Your task to perform on an android device: check google app version Image 0: 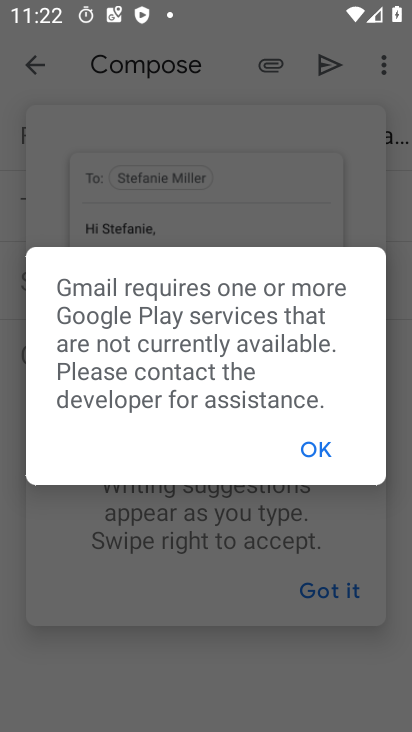
Step 0: press home button
Your task to perform on an android device: check google app version Image 1: 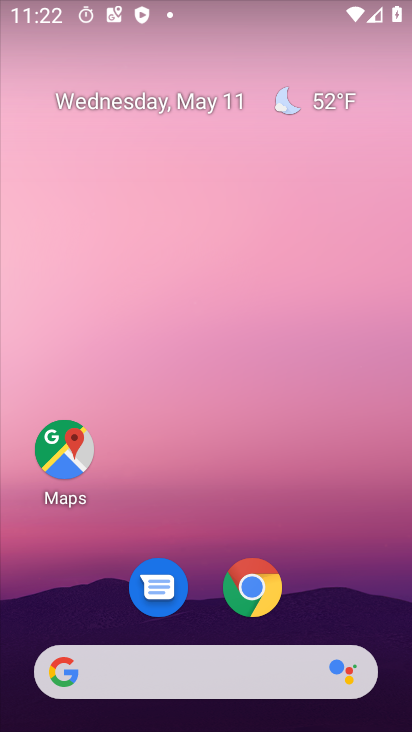
Step 1: drag from (187, 713) to (245, 382)
Your task to perform on an android device: check google app version Image 2: 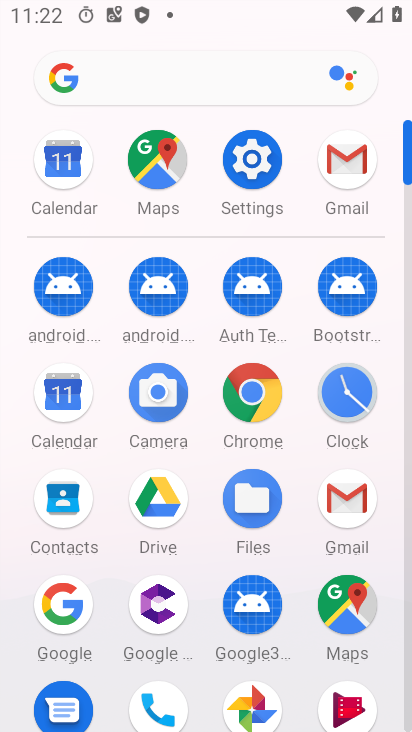
Step 2: click (235, 400)
Your task to perform on an android device: check google app version Image 3: 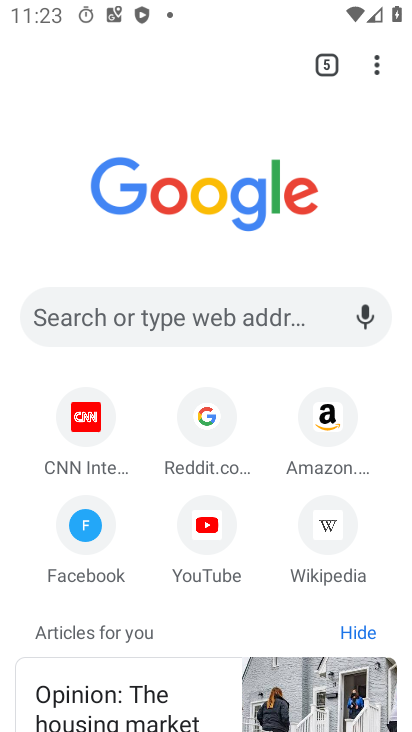
Step 3: click (382, 71)
Your task to perform on an android device: check google app version Image 4: 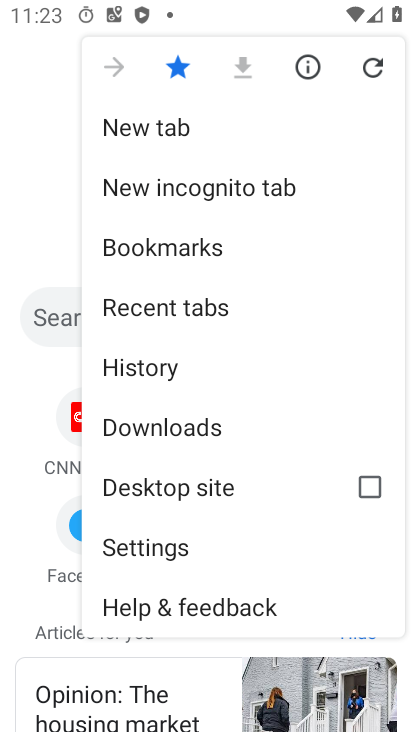
Step 4: click (168, 541)
Your task to perform on an android device: check google app version Image 5: 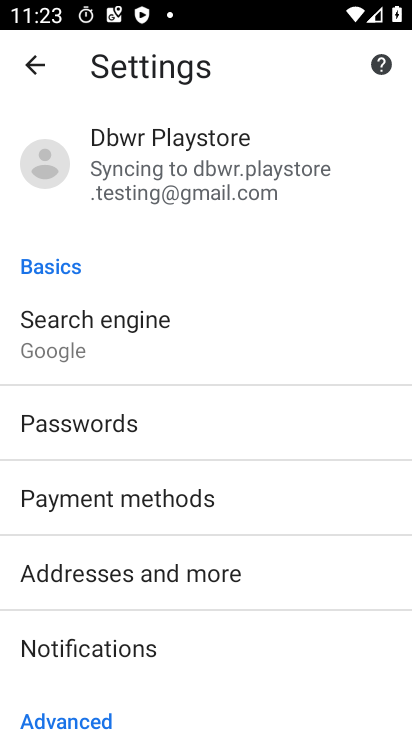
Step 5: drag from (119, 625) to (291, 274)
Your task to perform on an android device: check google app version Image 6: 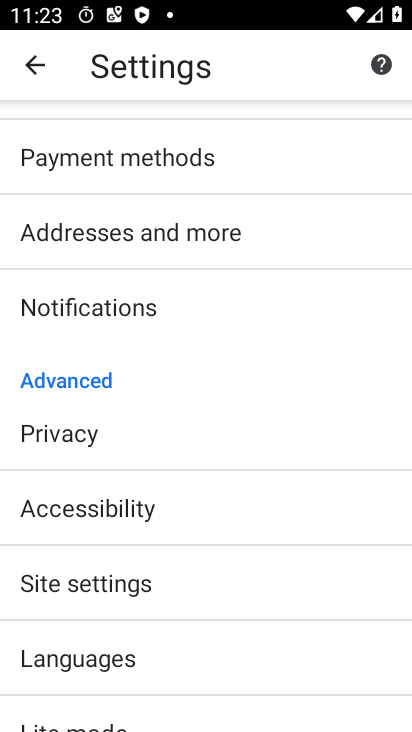
Step 6: drag from (89, 623) to (282, 280)
Your task to perform on an android device: check google app version Image 7: 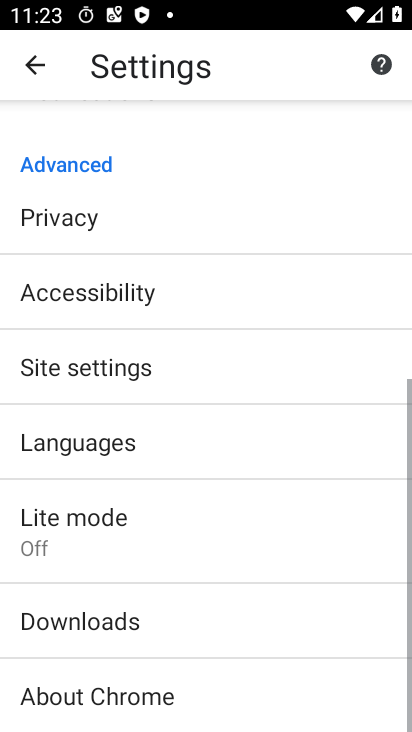
Step 7: drag from (118, 632) to (272, 430)
Your task to perform on an android device: check google app version Image 8: 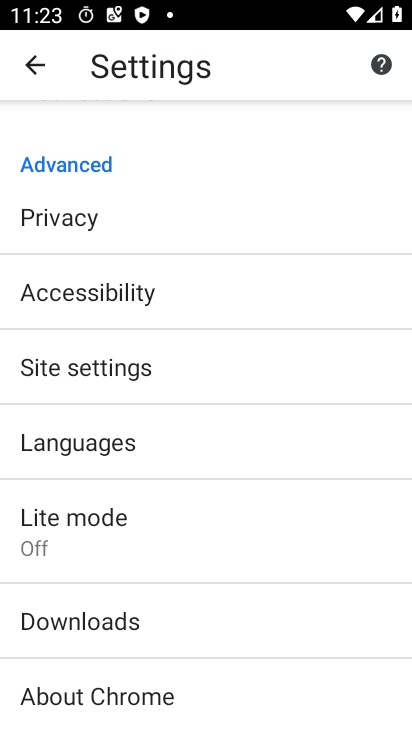
Step 8: click (87, 696)
Your task to perform on an android device: check google app version Image 9: 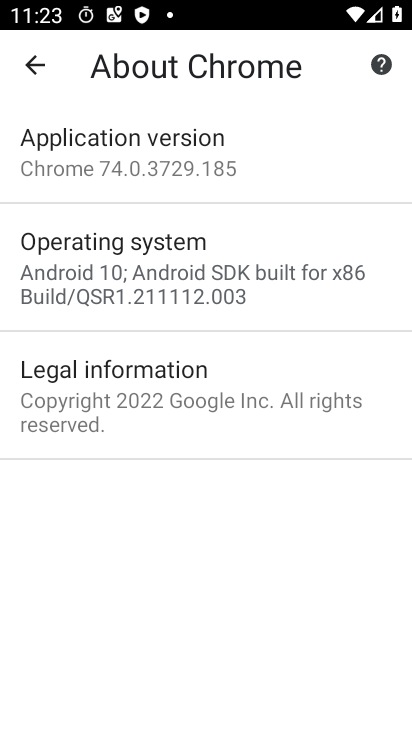
Step 9: click (199, 168)
Your task to perform on an android device: check google app version Image 10: 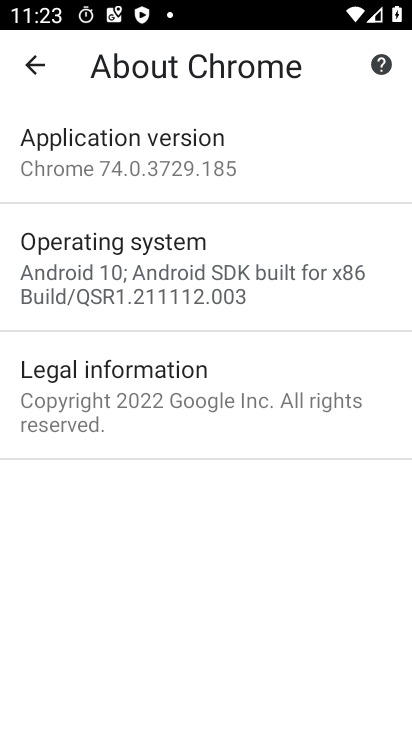
Step 10: task complete